Your task to perform on an android device: Check the weather Image 0: 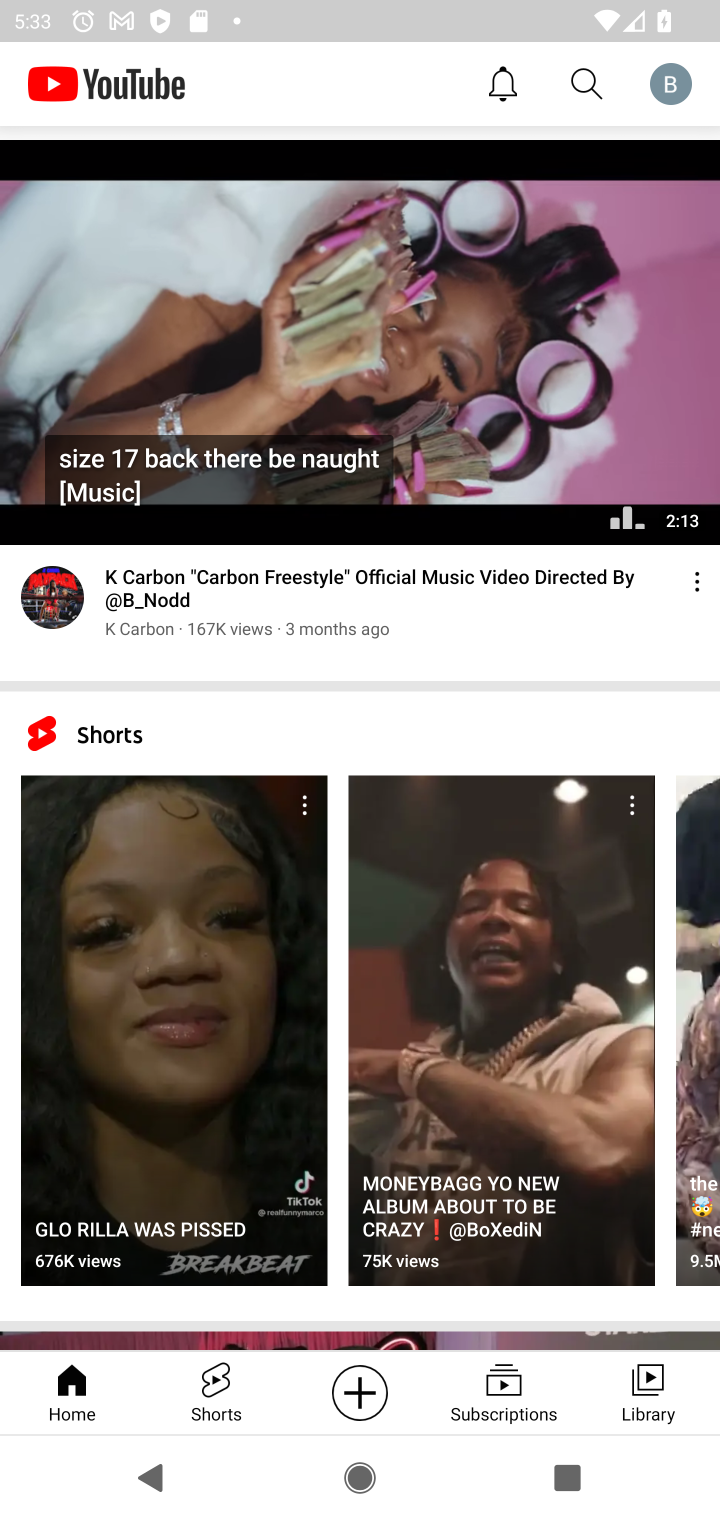
Step 0: press home button
Your task to perform on an android device: Check the weather Image 1: 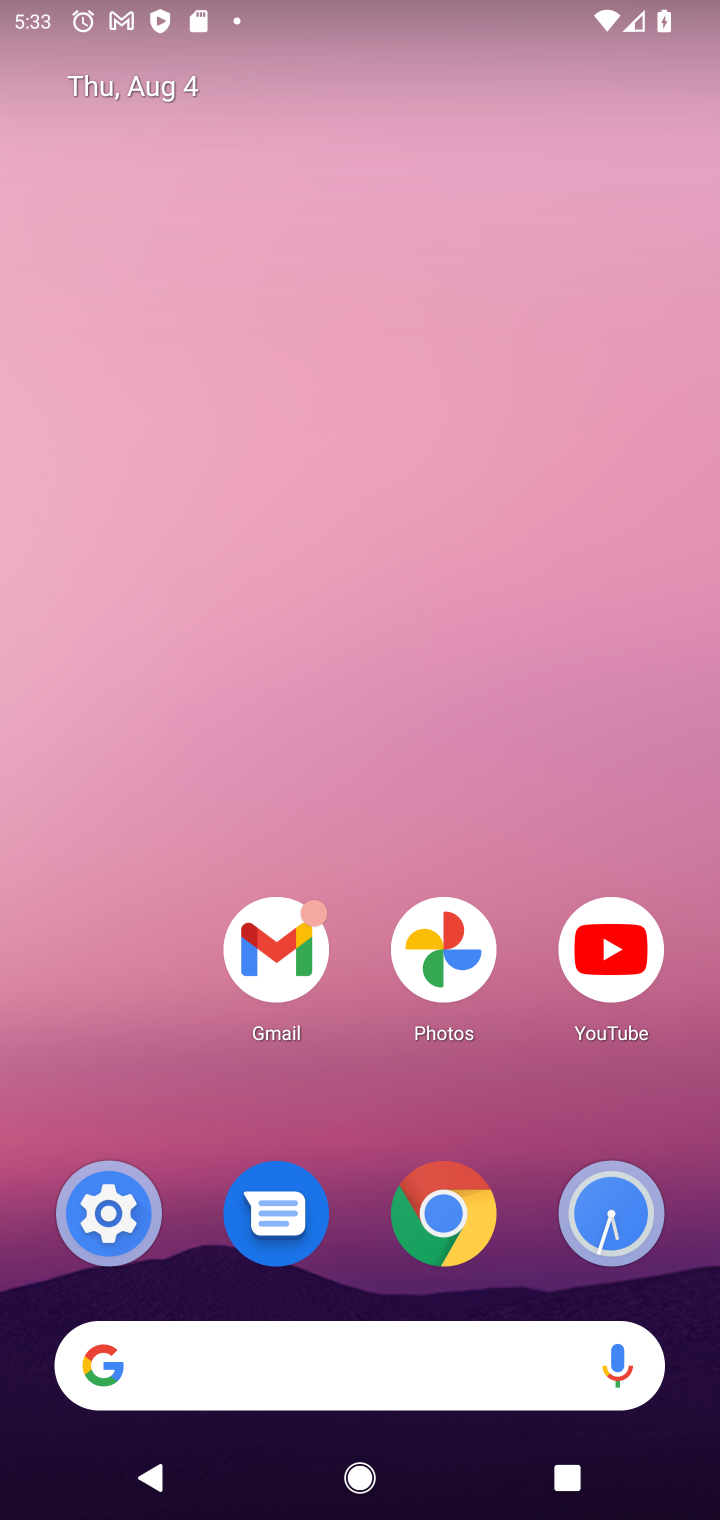
Step 1: click (202, 1369)
Your task to perform on an android device: Check the weather Image 2: 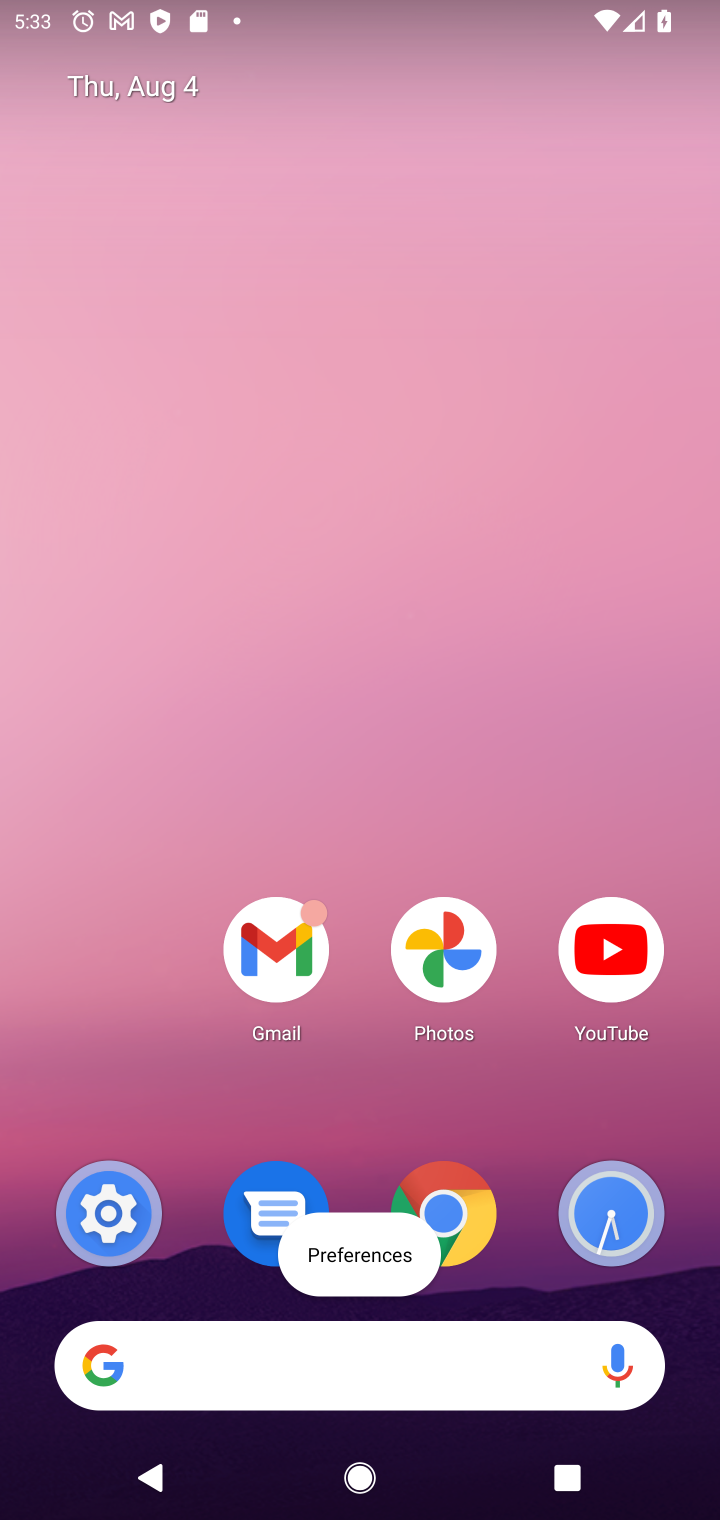
Step 2: click (202, 1369)
Your task to perform on an android device: Check the weather Image 3: 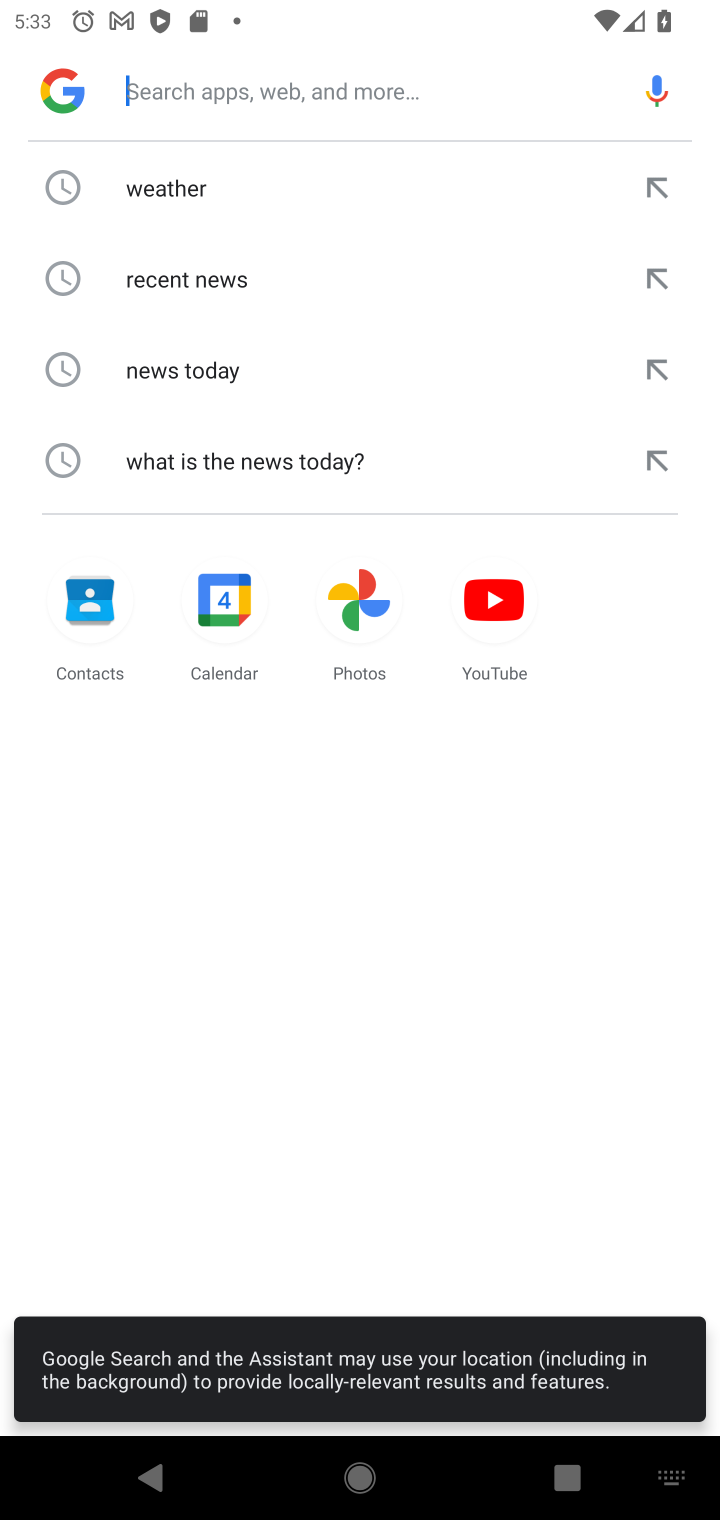
Step 3: click (188, 194)
Your task to perform on an android device: Check the weather Image 4: 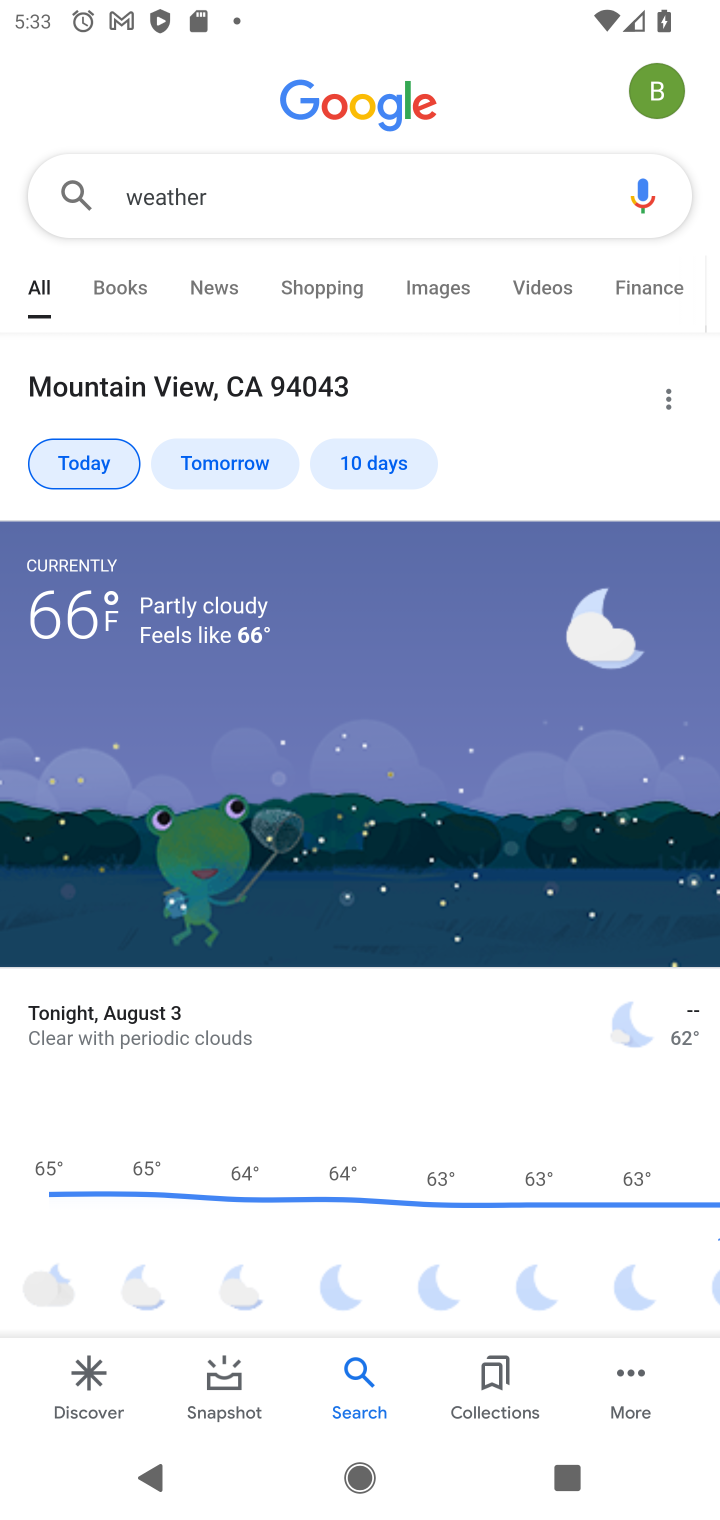
Step 4: task complete